Your task to perform on an android device: Open battery settings Image 0: 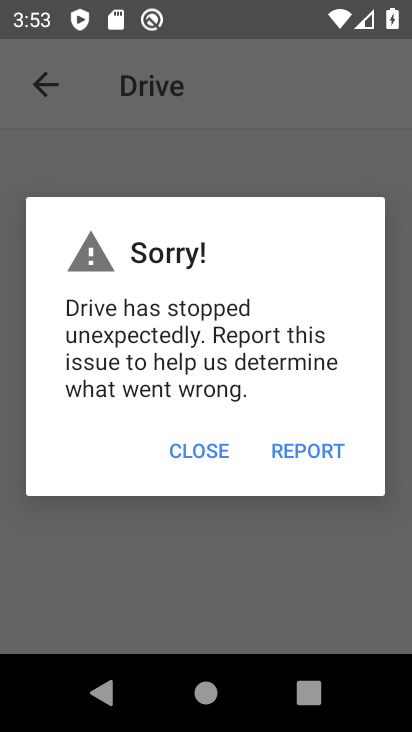
Step 0: drag from (317, 492) to (277, 171)
Your task to perform on an android device: Open battery settings Image 1: 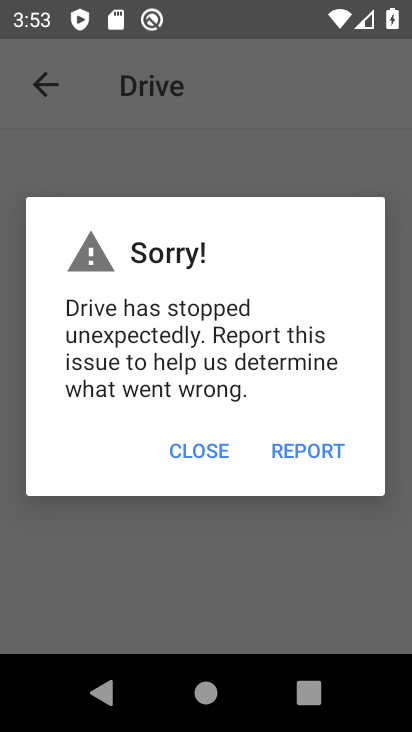
Step 1: press home button
Your task to perform on an android device: Open battery settings Image 2: 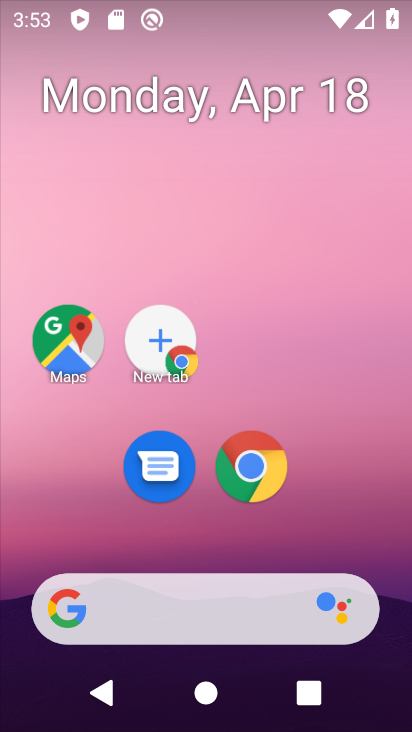
Step 2: drag from (333, 525) to (244, 5)
Your task to perform on an android device: Open battery settings Image 3: 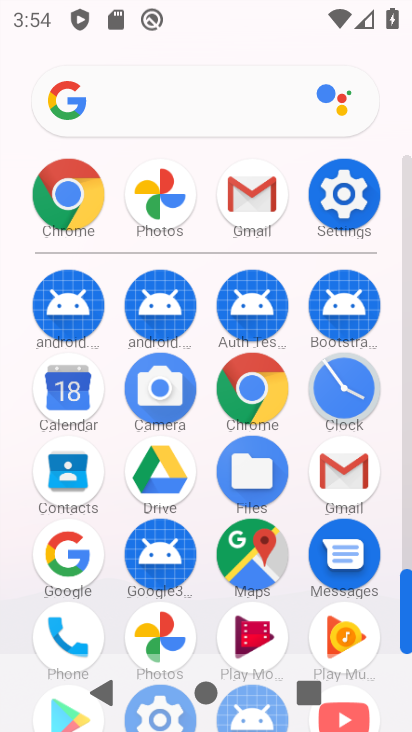
Step 3: click (346, 193)
Your task to perform on an android device: Open battery settings Image 4: 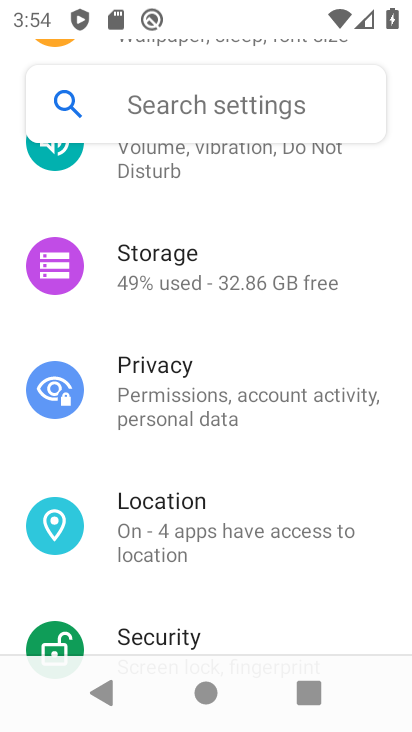
Step 4: drag from (301, 232) to (282, 461)
Your task to perform on an android device: Open battery settings Image 5: 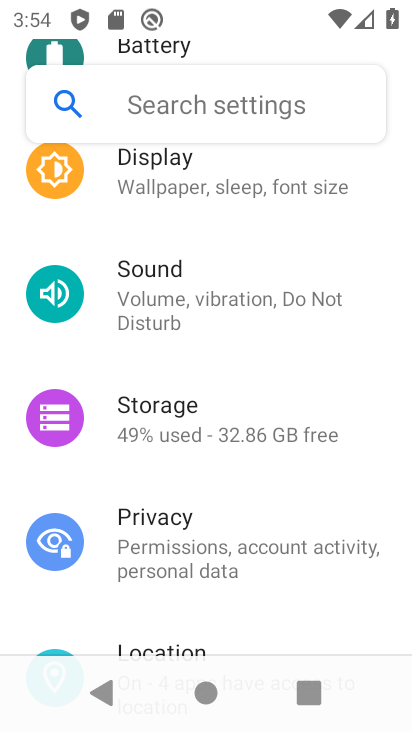
Step 5: drag from (282, 287) to (280, 564)
Your task to perform on an android device: Open battery settings Image 6: 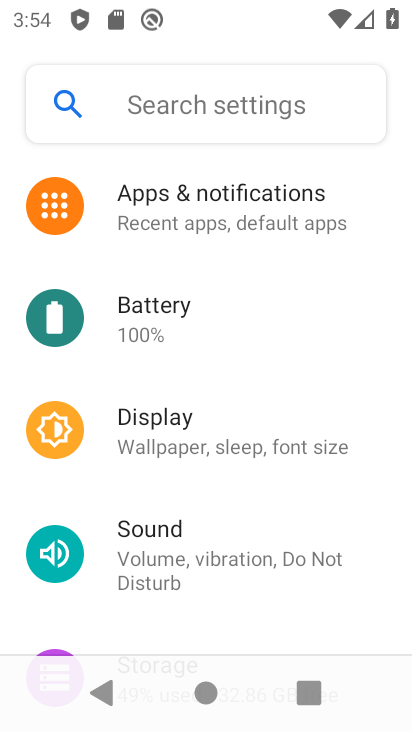
Step 6: drag from (274, 253) to (262, 575)
Your task to perform on an android device: Open battery settings Image 7: 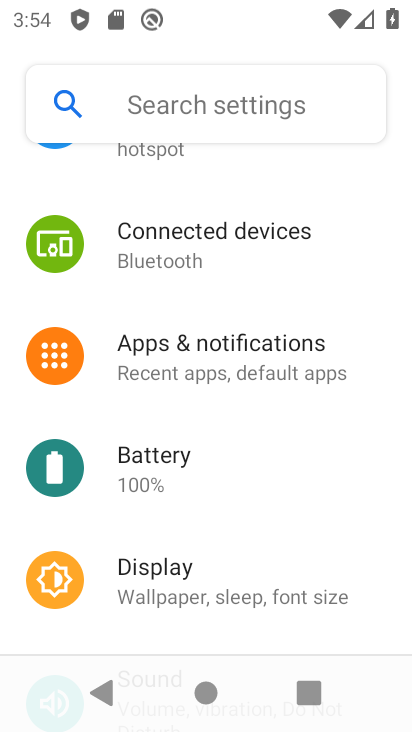
Step 7: drag from (298, 244) to (284, 525)
Your task to perform on an android device: Open battery settings Image 8: 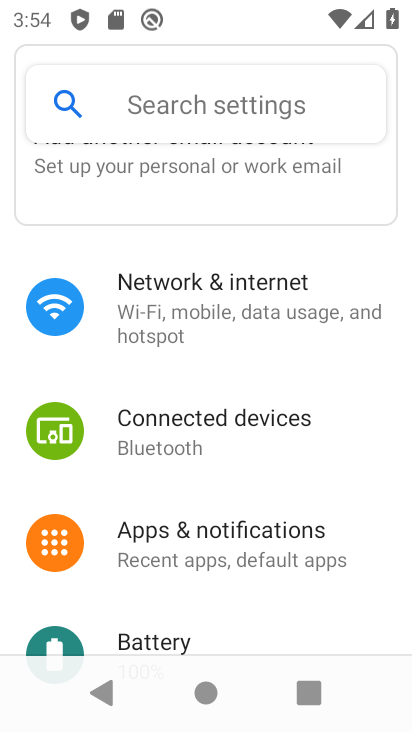
Step 8: drag from (290, 611) to (309, 225)
Your task to perform on an android device: Open battery settings Image 9: 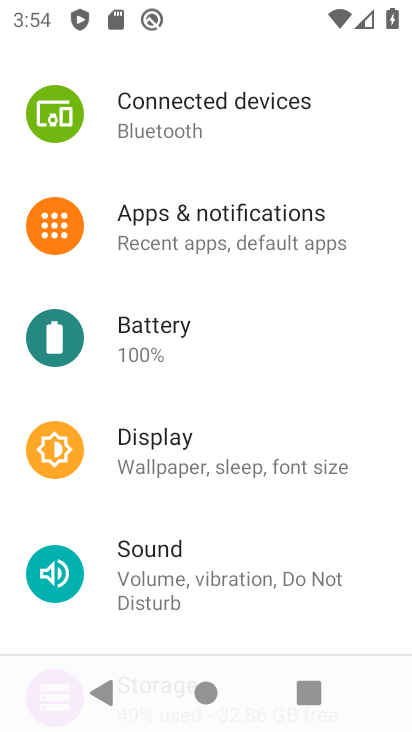
Step 9: drag from (320, 553) to (286, 178)
Your task to perform on an android device: Open battery settings Image 10: 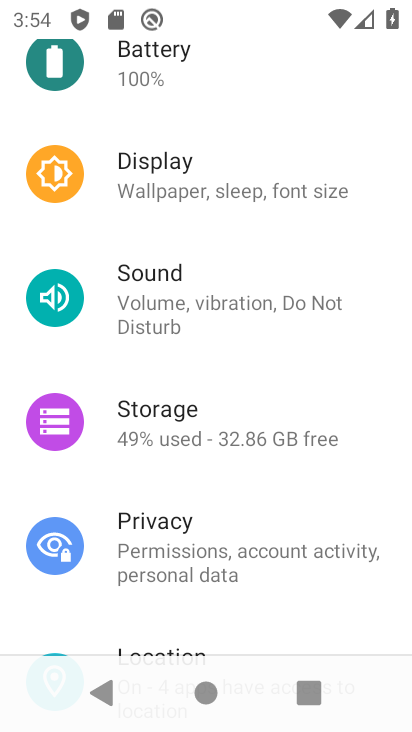
Step 10: click (212, 73)
Your task to perform on an android device: Open battery settings Image 11: 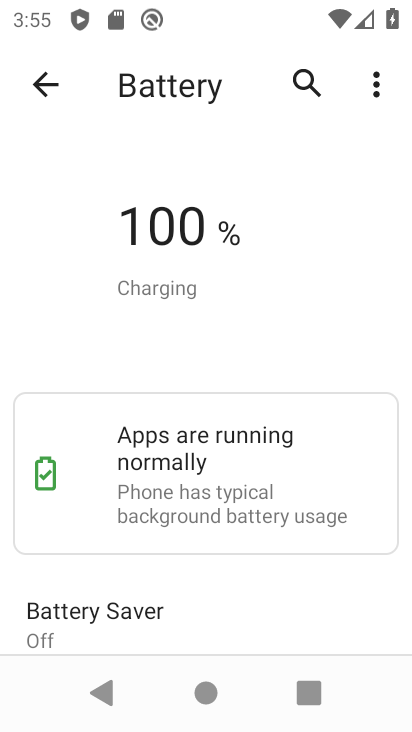
Step 11: task complete